Your task to perform on an android device: open a bookmark in the chrome app Image 0: 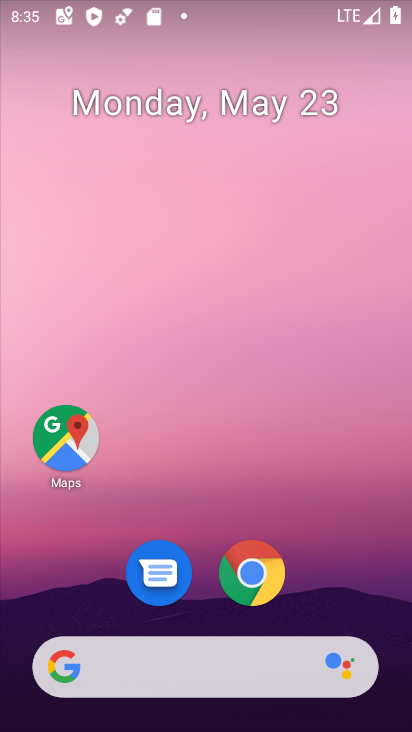
Step 0: click (252, 578)
Your task to perform on an android device: open a bookmark in the chrome app Image 1: 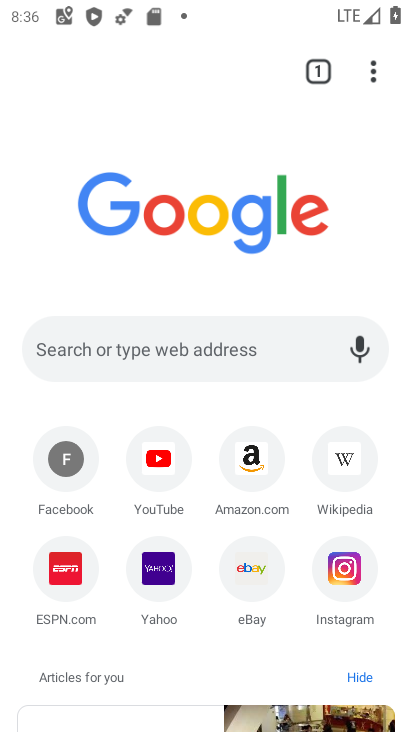
Step 1: click (373, 73)
Your task to perform on an android device: open a bookmark in the chrome app Image 2: 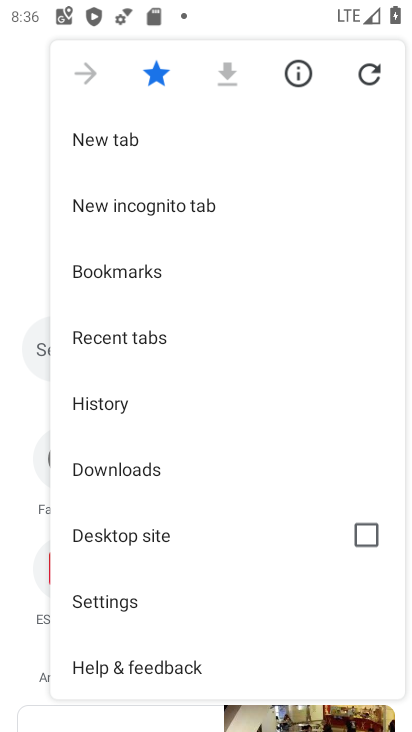
Step 2: click (154, 260)
Your task to perform on an android device: open a bookmark in the chrome app Image 3: 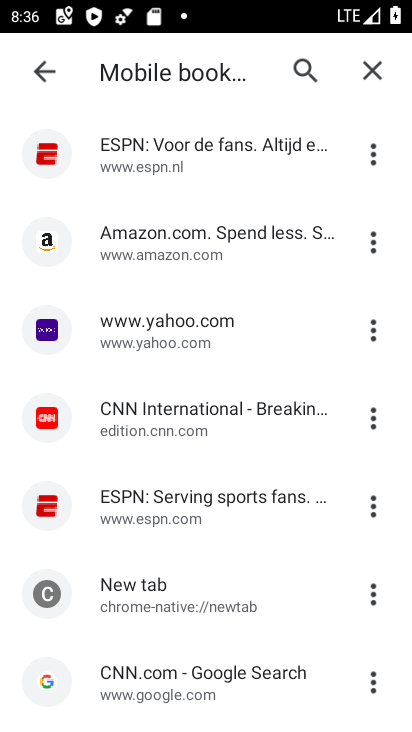
Step 3: click (175, 235)
Your task to perform on an android device: open a bookmark in the chrome app Image 4: 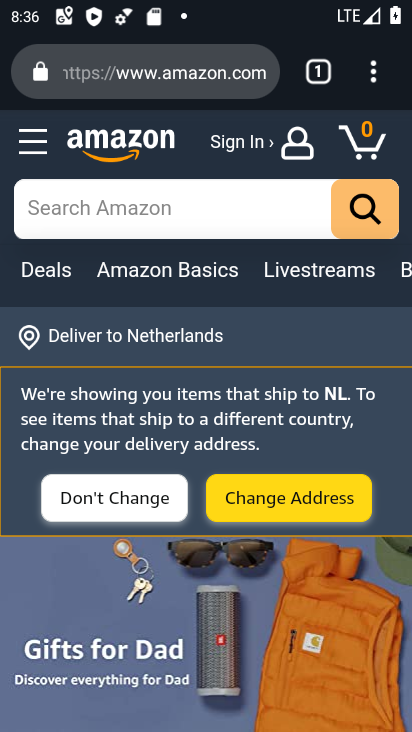
Step 4: task complete